Your task to perform on an android device: Go to Yahoo.com Image 0: 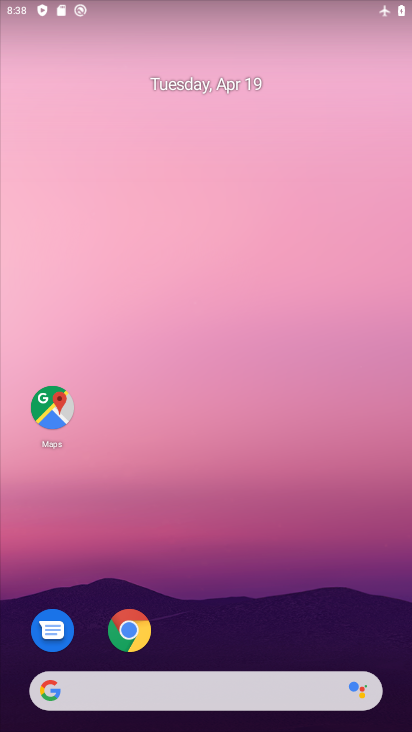
Step 0: drag from (251, 654) to (297, 0)
Your task to perform on an android device: Go to Yahoo.com Image 1: 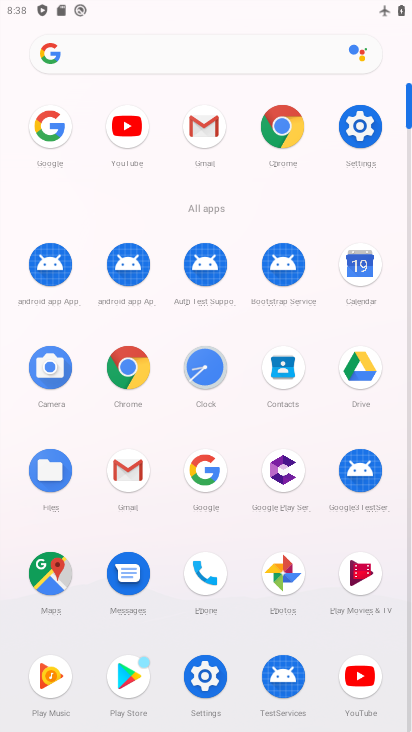
Step 1: click (277, 140)
Your task to perform on an android device: Go to Yahoo.com Image 2: 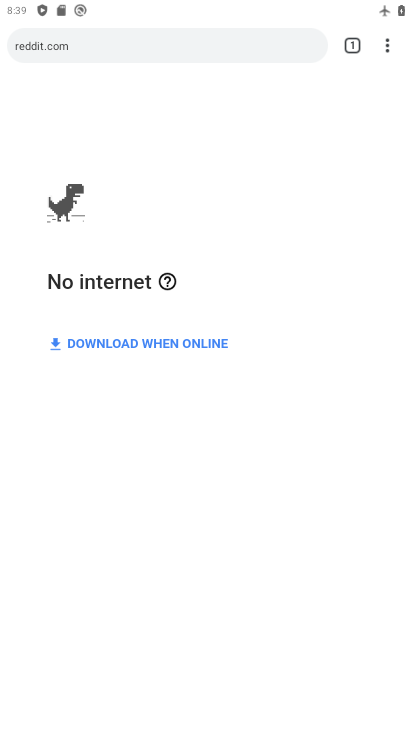
Step 2: task complete